Your task to perform on an android device: open app "Walmart Shopping & Grocery" Image 0: 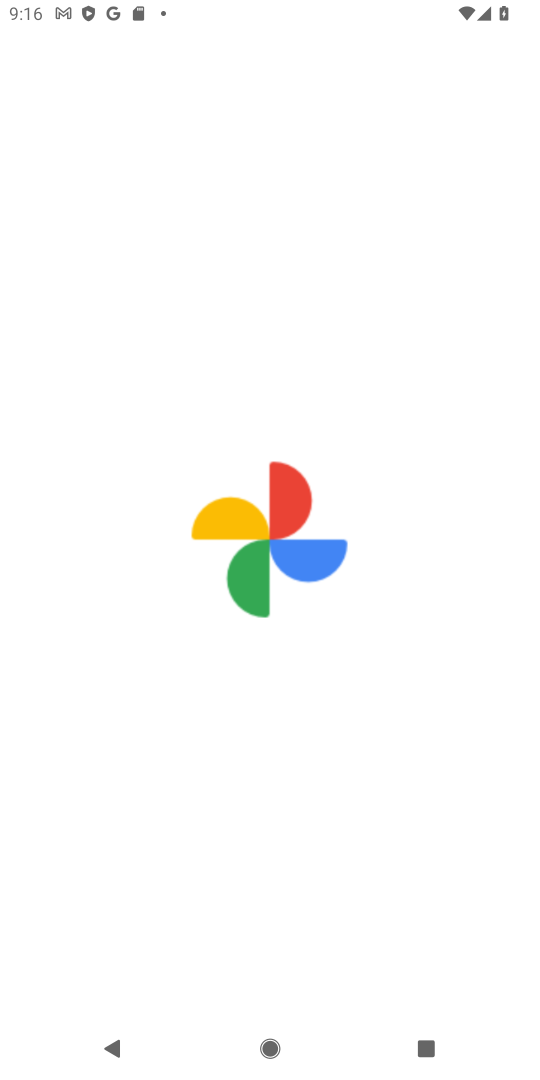
Step 0: press back button
Your task to perform on an android device: open app "Walmart Shopping & Grocery" Image 1: 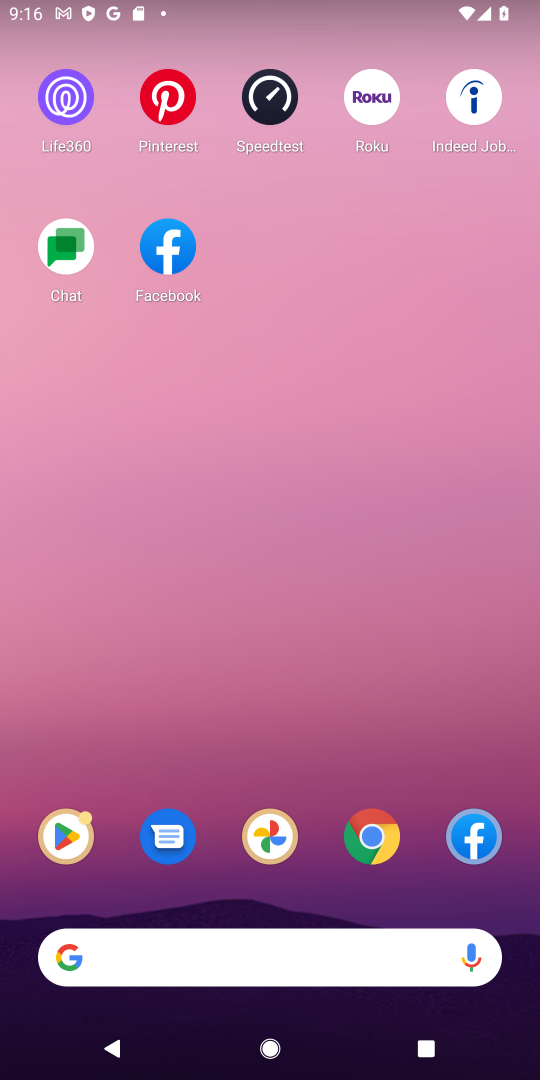
Step 1: drag from (262, 535) to (169, 88)
Your task to perform on an android device: open app "Walmart Shopping & Grocery" Image 2: 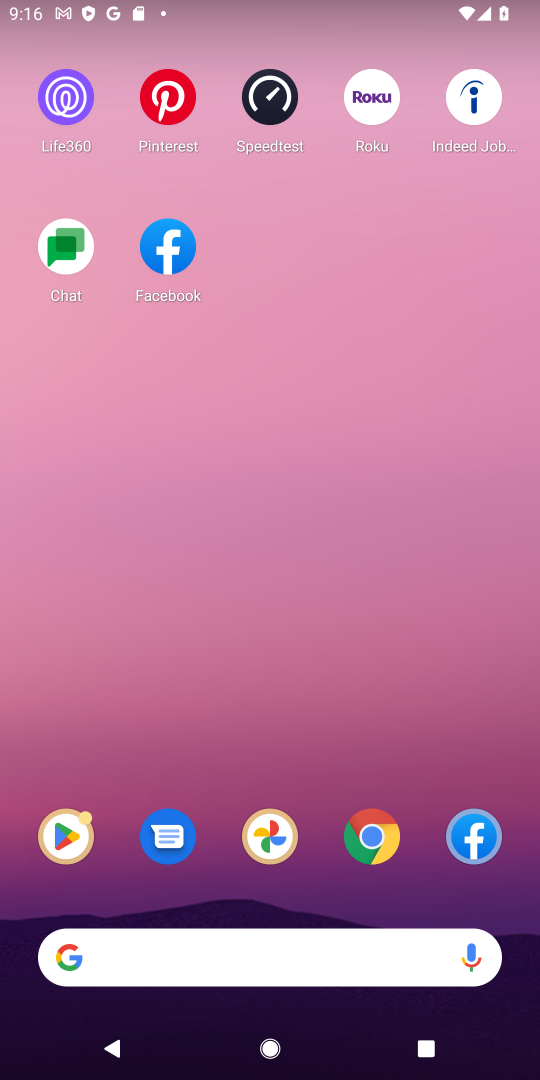
Step 2: drag from (236, 470) to (175, 141)
Your task to perform on an android device: open app "Walmart Shopping & Grocery" Image 3: 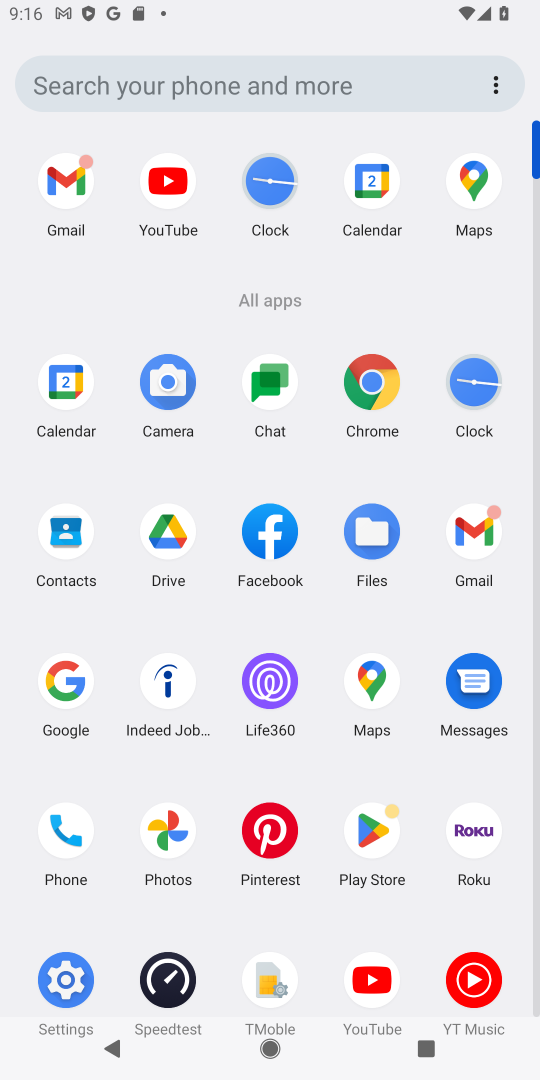
Step 3: click (377, 828)
Your task to perform on an android device: open app "Walmart Shopping & Grocery" Image 4: 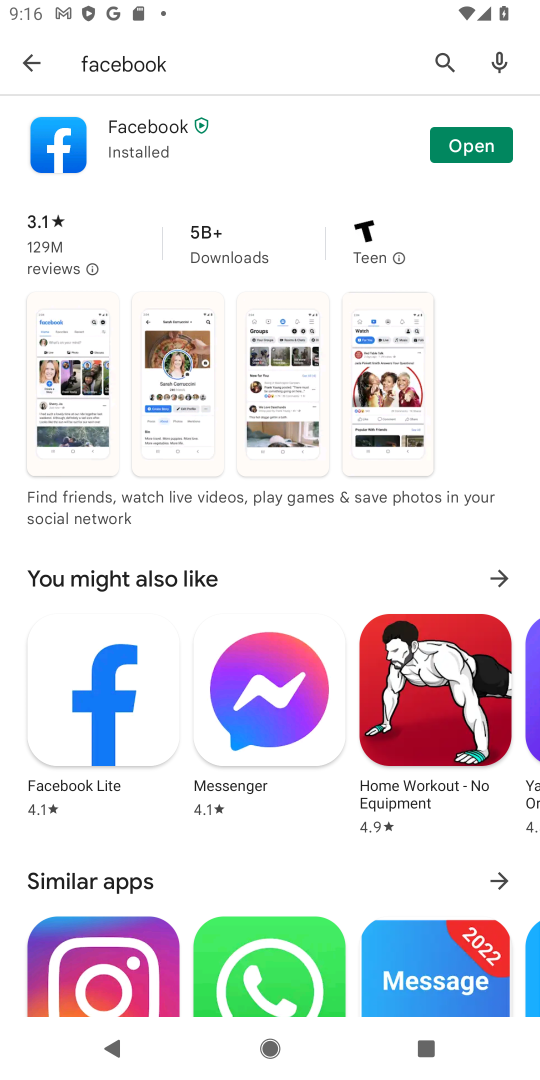
Step 4: click (374, 828)
Your task to perform on an android device: open app "Walmart Shopping & Grocery" Image 5: 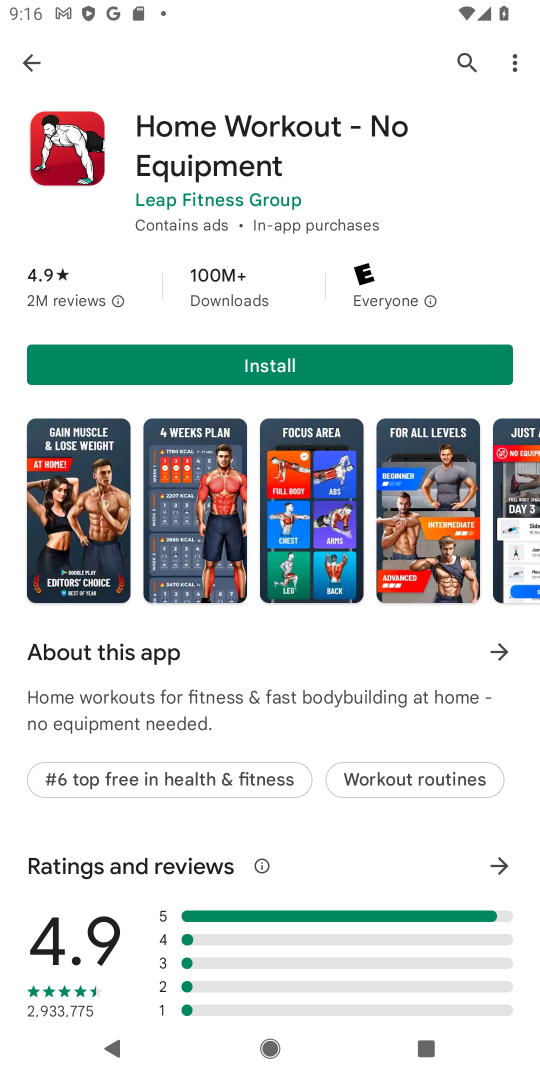
Step 5: click (17, 70)
Your task to perform on an android device: open app "Walmart Shopping & Grocery" Image 6: 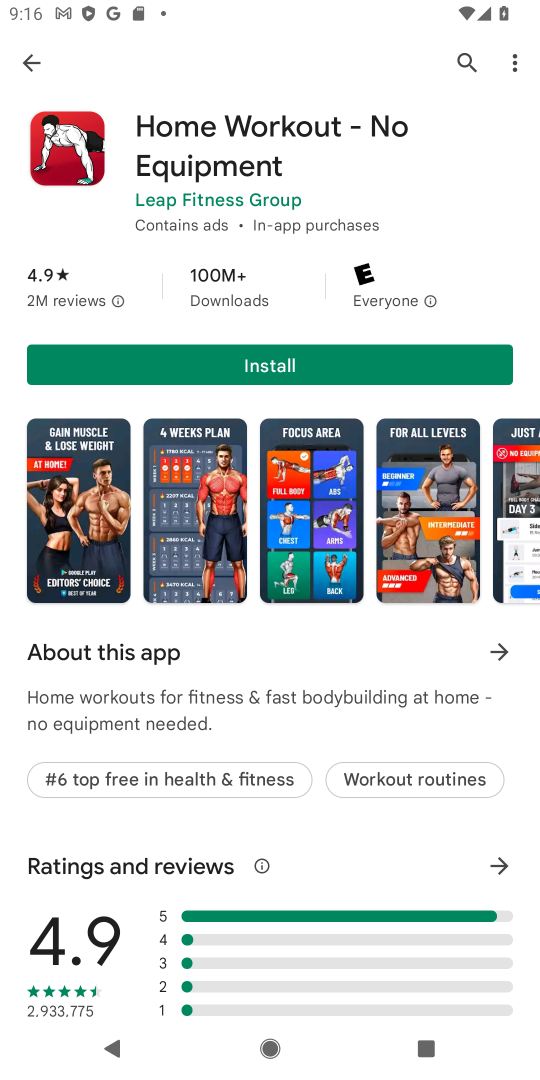
Step 6: click (33, 49)
Your task to perform on an android device: open app "Walmart Shopping & Grocery" Image 7: 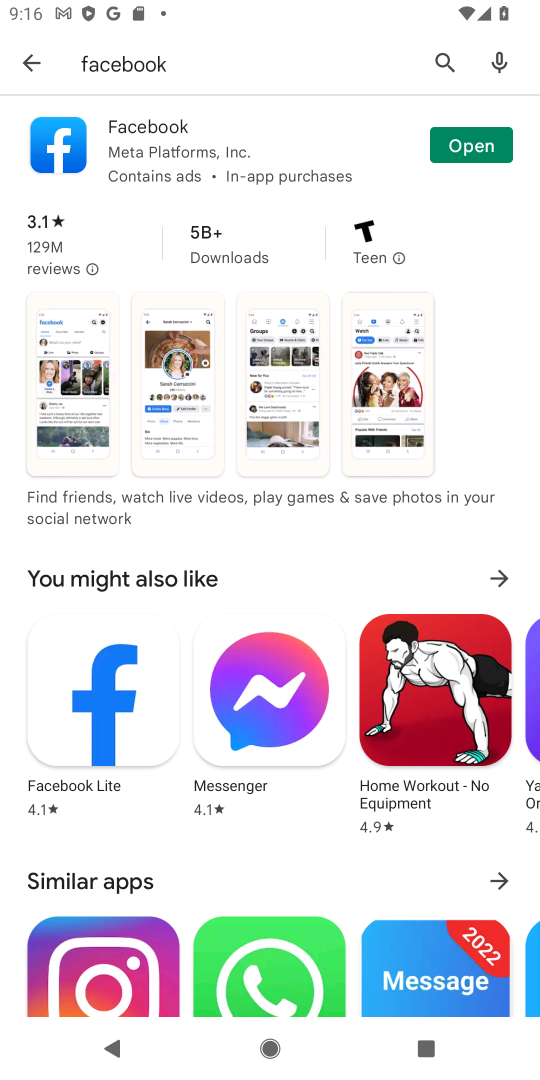
Step 7: click (438, 51)
Your task to perform on an android device: open app "Walmart Shopping & Grocery" Image 8: 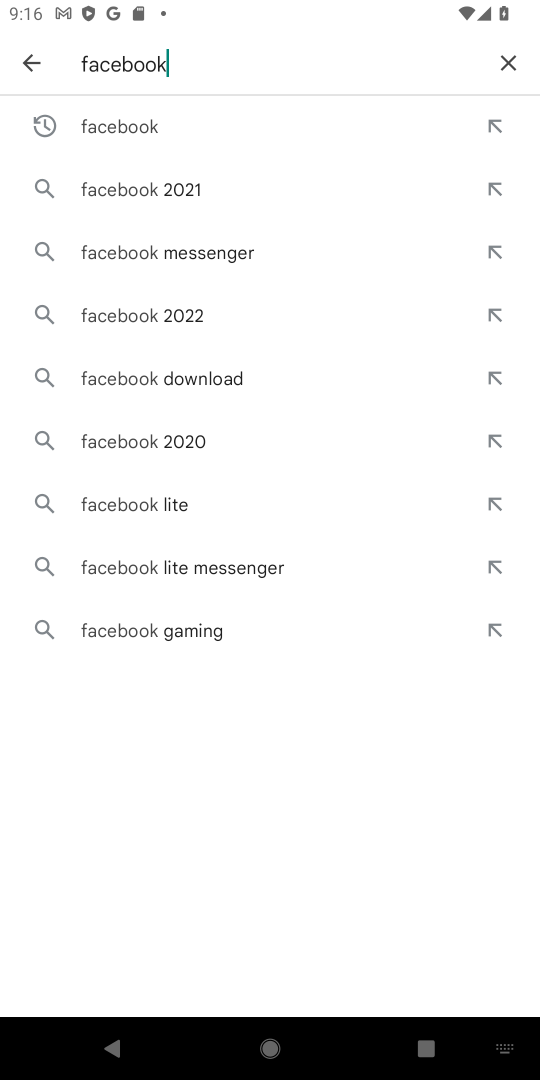
Step 8: click (505, 59)
Your task to perform on an android device: open app "Walmart Shopping & Grocery" Image 9: 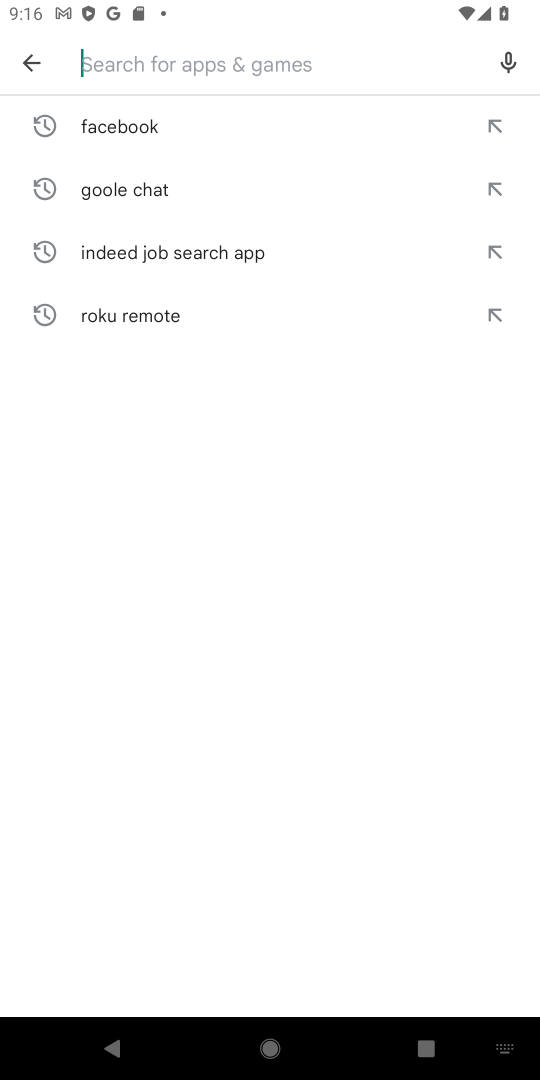
Step 9: type "walmart"
Your task to perform on an android device: open app "Walmart Shopping & Grocery" Image 10: 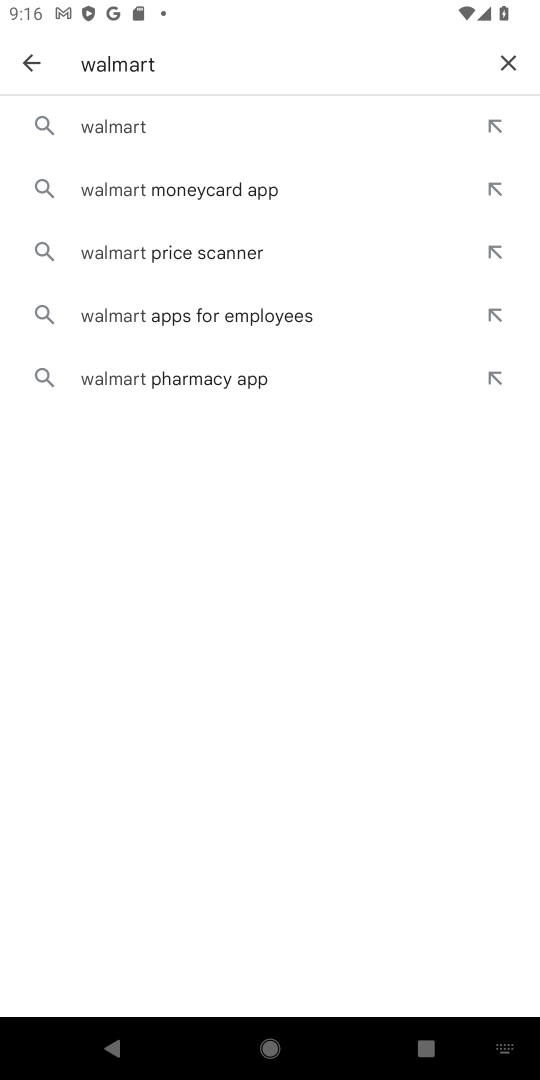
Step 10: click (75, 123)
Your task to perform on an android device: open app "Walmart Shopping & Grocery" Image 11: 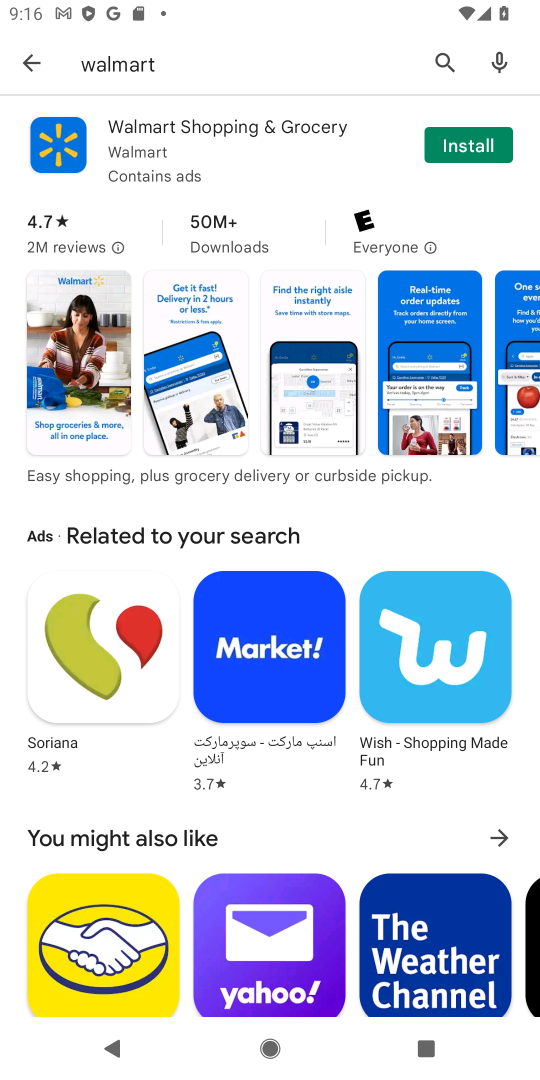
Step 11: click (480, 136)
Your task to perform on an android device: open app "Walmart Shopping & Grocery" Image 12: 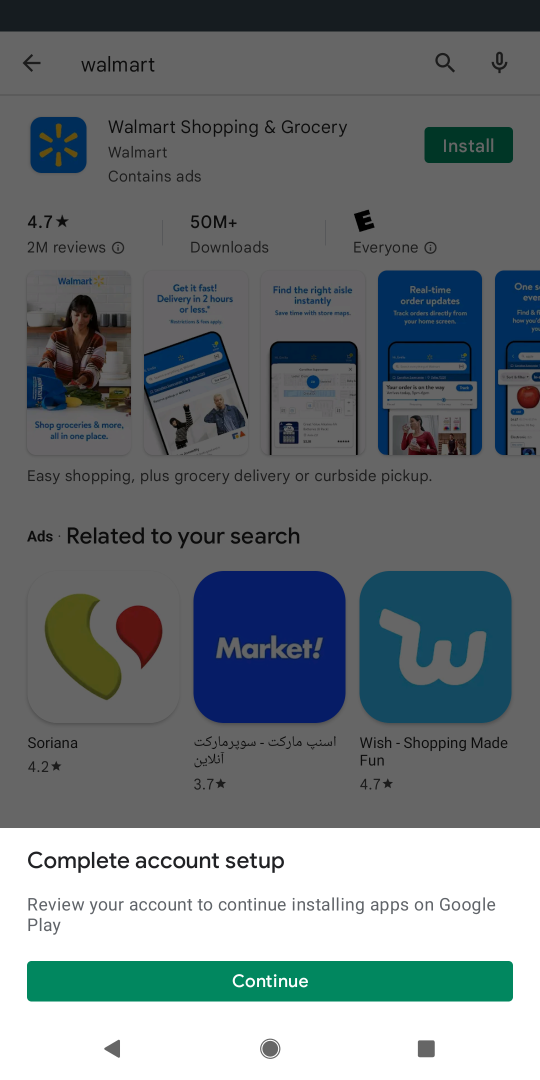
Step 12: click (374, 996)
Your task to perform on an android device: open app "Walmart Shopping & Grocery" Image 13: 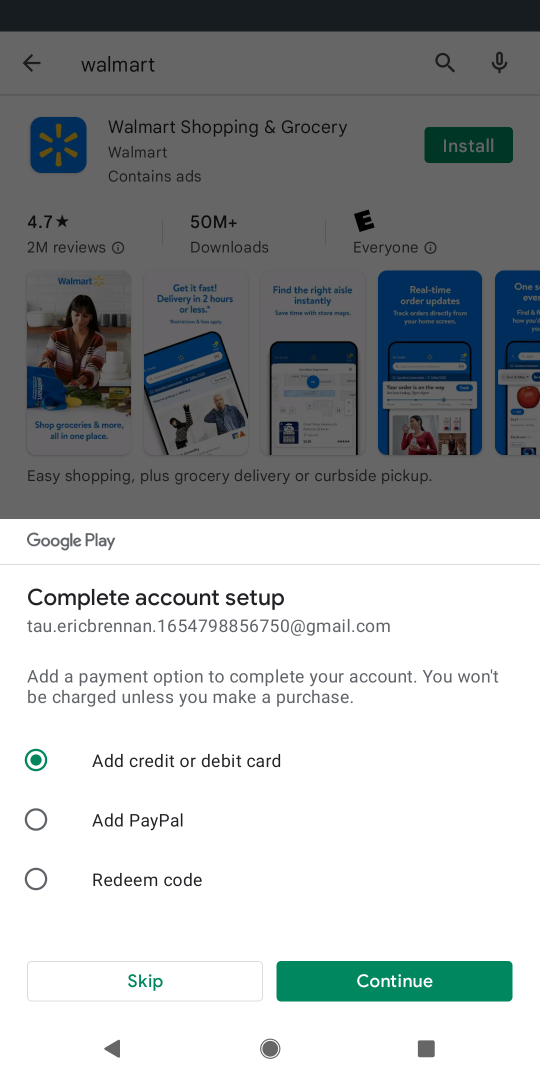
Step 13: click (154, 977)
Your task to perform on an android device: open app "Walmart Shopping & Grocery" Image 14: 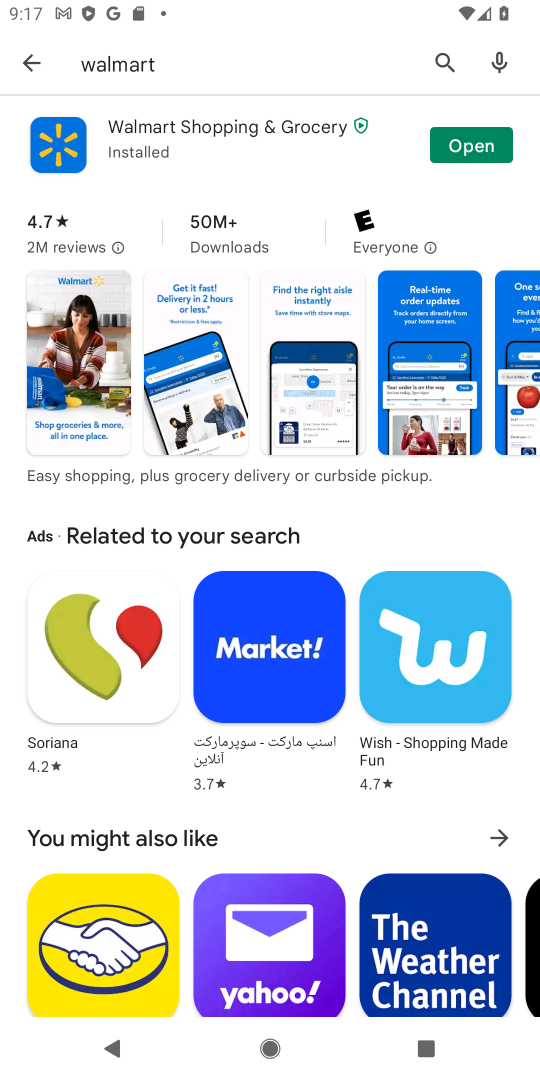
Step 14: click (461, 156)
Your task to perform on an android device: open app "Walmart Shopping & Grocery" Image 15: 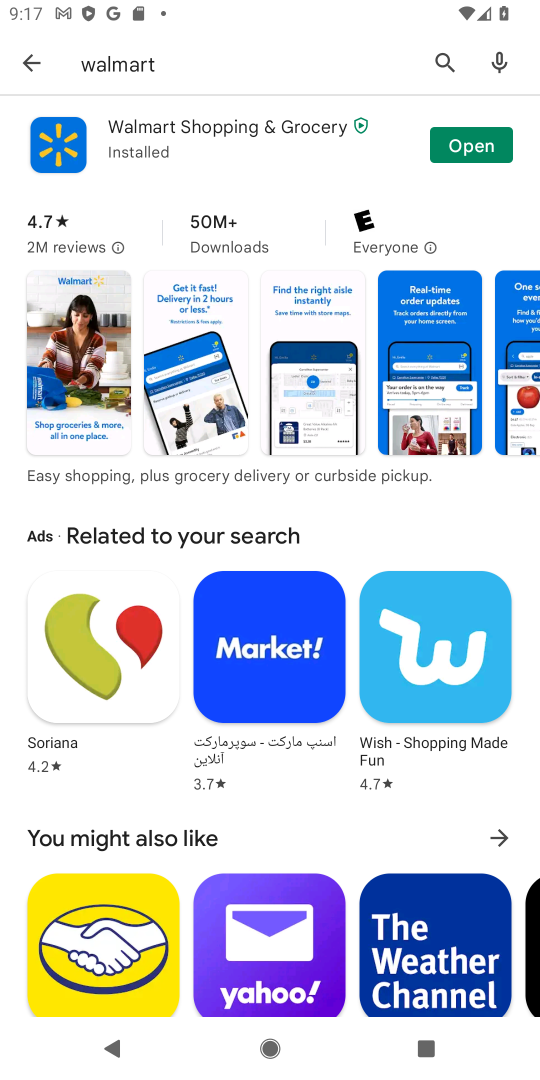
Step 15: click (476, 142)
Your task to perform on an android device: open app "Walmart Shopping & Grocery" Image 16: 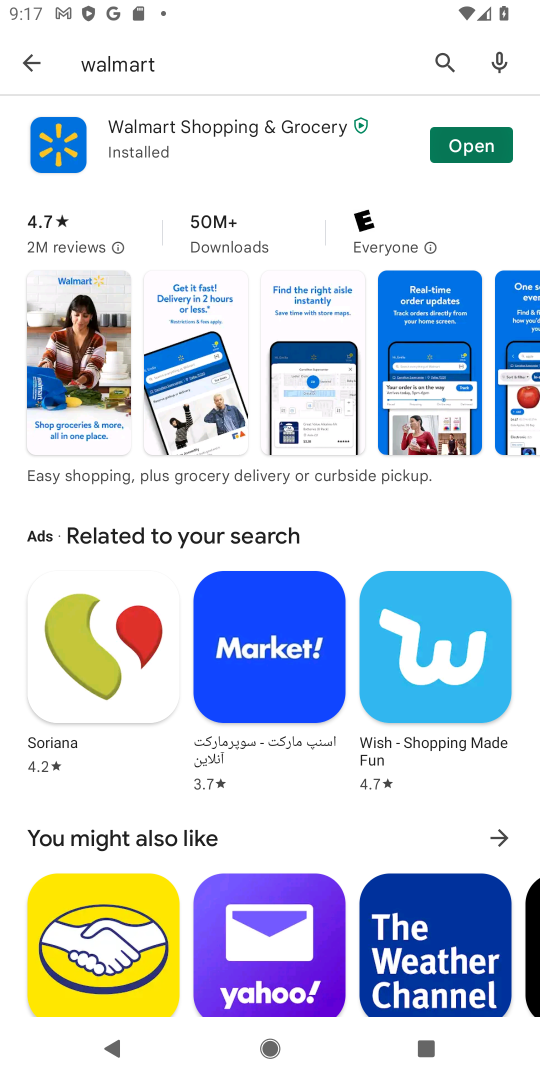
Step 16: click (479, 144)
Your task to perform on an android device: open app "Walmart Shopping & Grocery" Image 17: 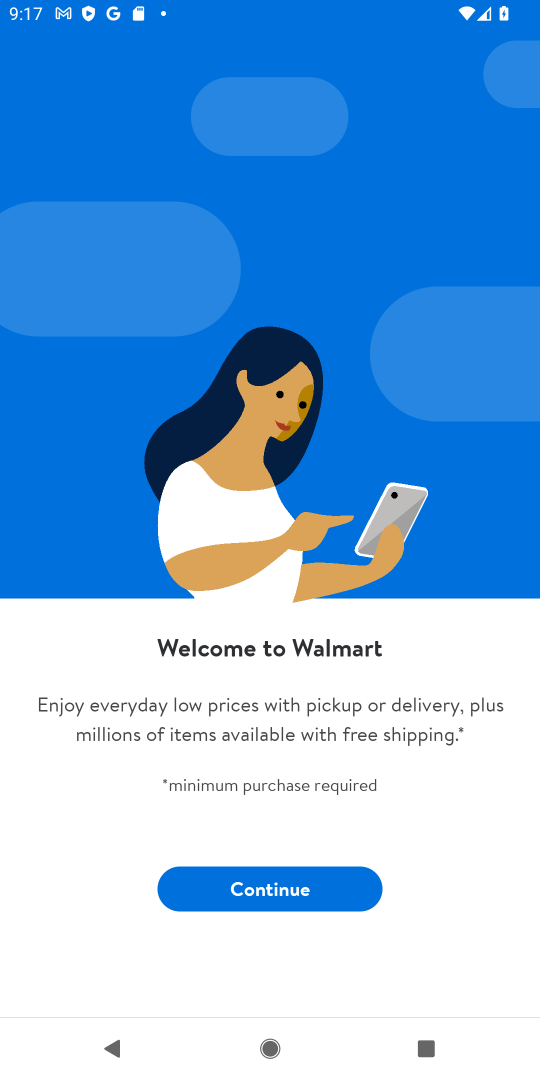
Step 17: click (254, 890)
Your task to perform on an android device: open app "Walmart Shopping & Grocery" Image 18: 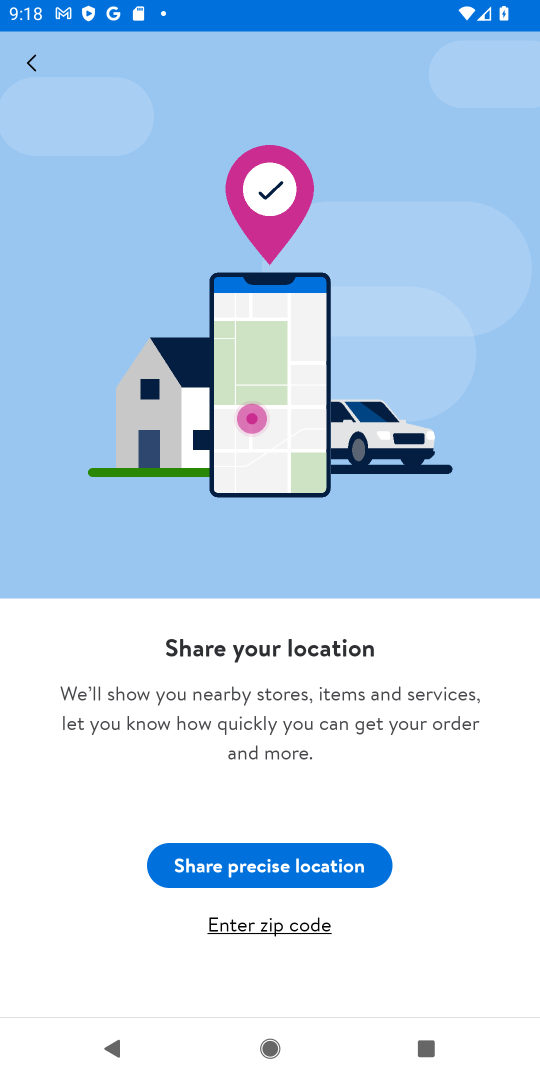
Step 18: click (341, 860)
Your task to perform on an android device: open app "Walmart Shopping & Grocery" Image 19: 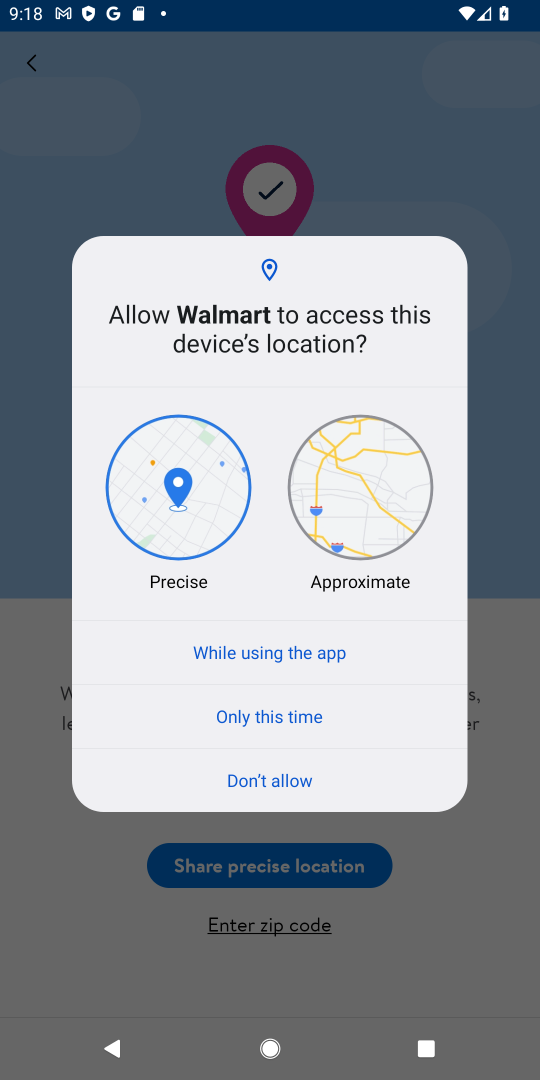
Step 19: click (287, 667)
Your task to perform on an android device: open app "Walmart Shopping & Grocery" Image 20: 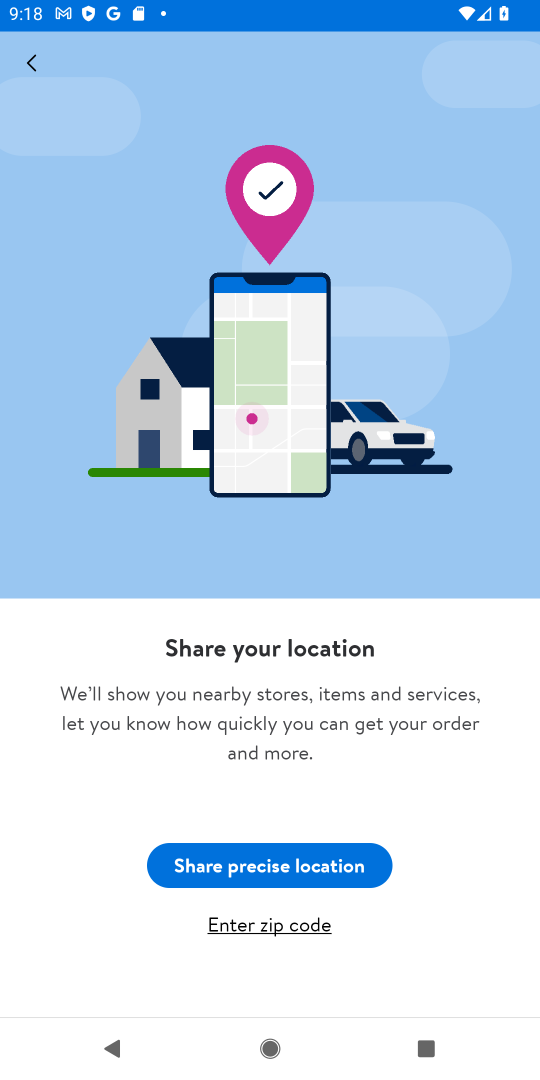
Step 20: task complete